Your task to perform on an android device: uninstall "Microsoft Authenticator" Image 0: 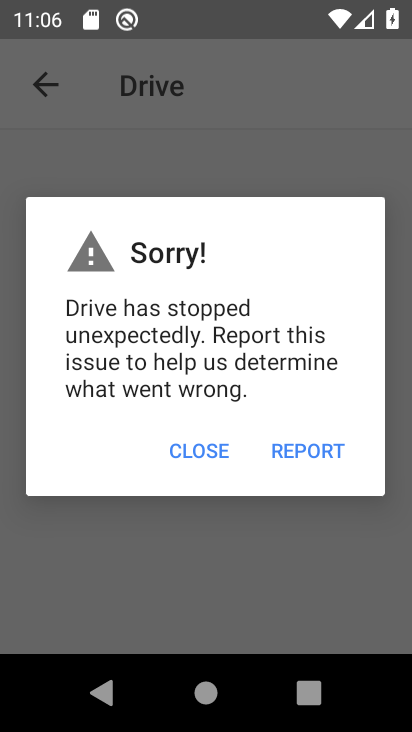
Step 0: click (184, 452)
Your task to perform on an android device: uninstall "Microsoft Authenticator" Image 1: 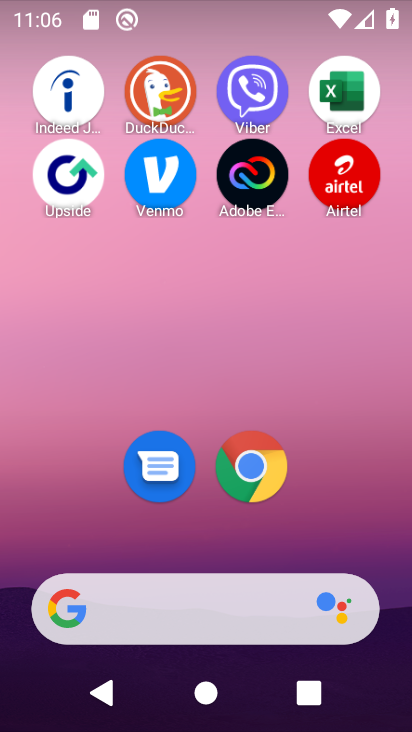
Step 1: drag from (231, 729) to (226, 188)
Your task to perform on an android device: uninstall "Microsoft Authenticator" Image 2: 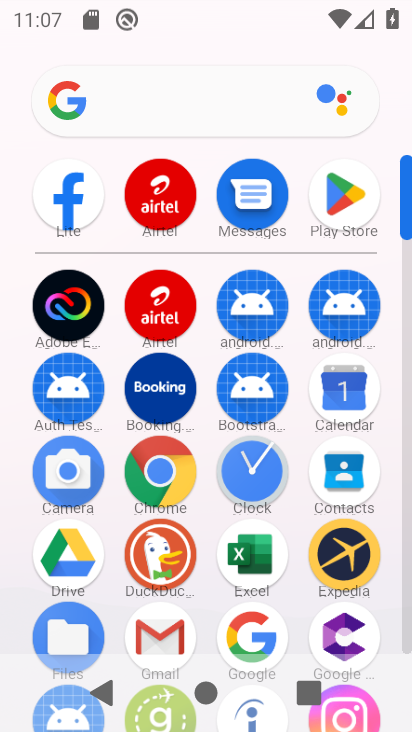
Step 2: click (345, 192)
Your task to perform on an android device: uninstall "Microsoft Authenticator" Image 3: 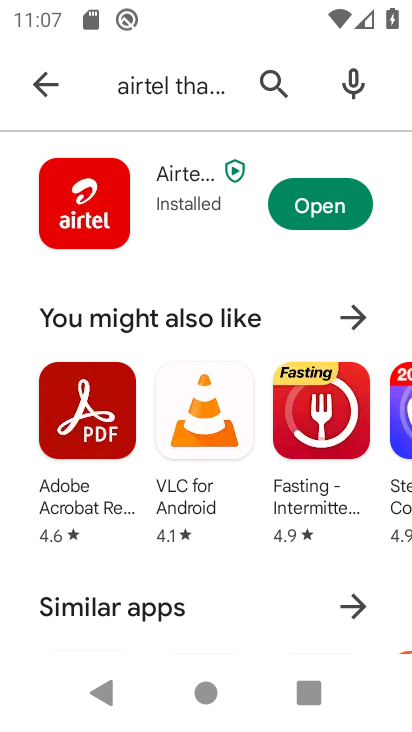
Step 3: click (270, 79)
Your task to perform on an android device: uninstall "Microsoft Authenticator" Image 4: 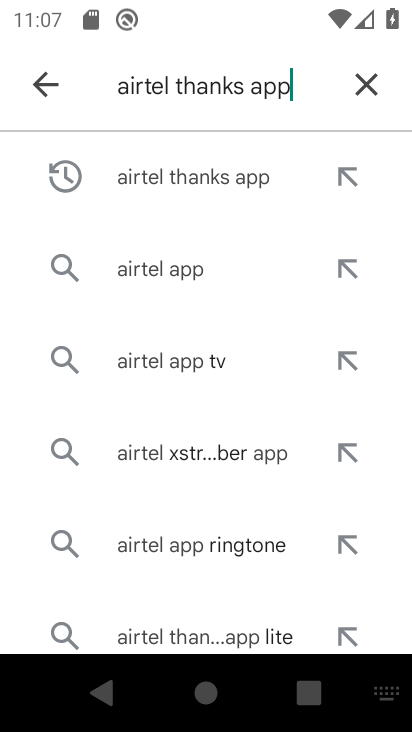
Step 4: click (367, 79)
Your task to perform on an android device: uninstall "Microsoft Authenticator" Image 5: 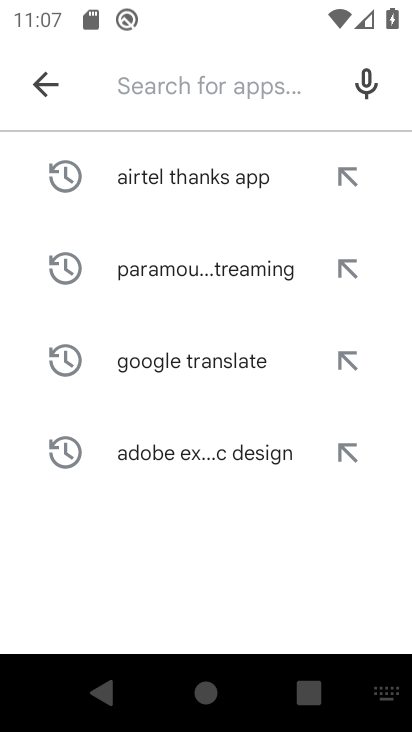
Step 5: type "Microsoft Authenticator"
Your task to perform on an android device: uninstall "Microsoft Authenticator" Image 6: 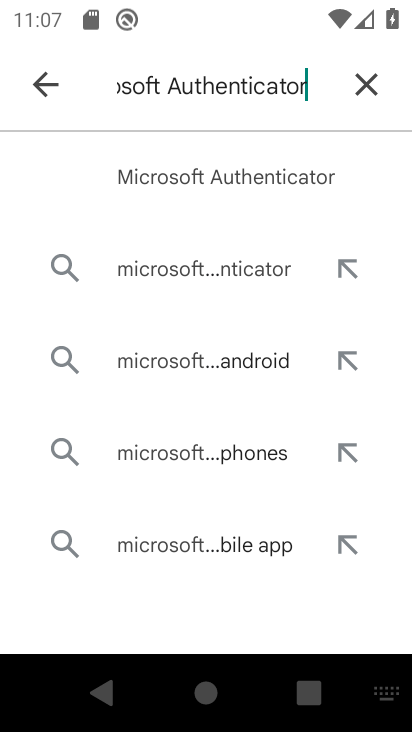
Step 6: type ""
Your task to perform on an android device: uninstall "Microsoft Authenticator" Image 7: 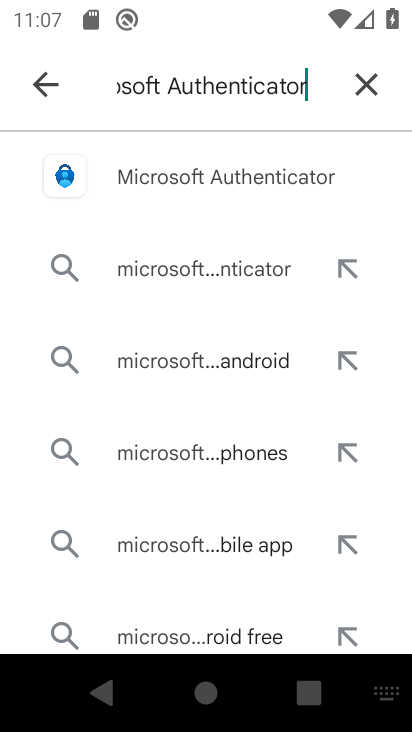
Step 7: click (255, 174)
Your task to perform on an android device: uninstall "Microsoft Authenticator" Image 8: 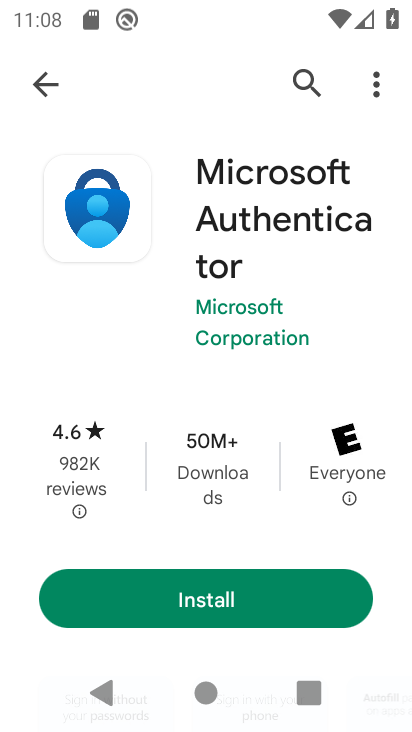
Step 8: task complete